Your task to perform on an android device: Go to Google maps Image 0: 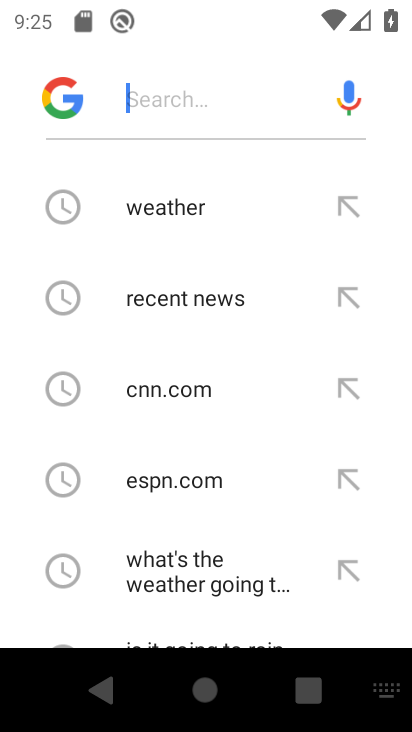
Step 0: press home button
Your task to perform on an android device: Go to Google maps Image 1: 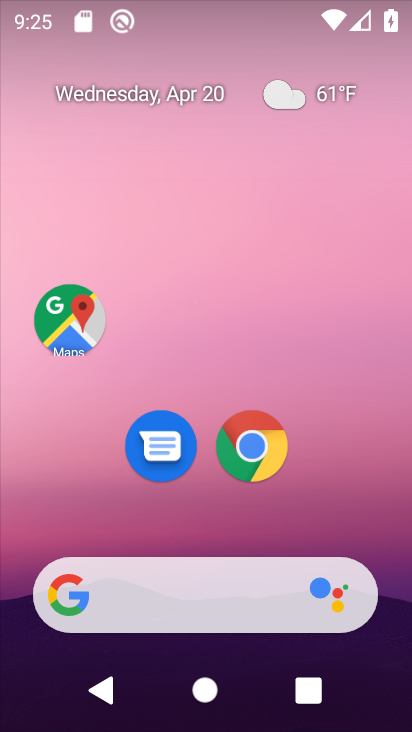
Step 1: drag from (364, 481) to (354, 122)
Your task to perform on an android device: Go to Google maps Image 2: 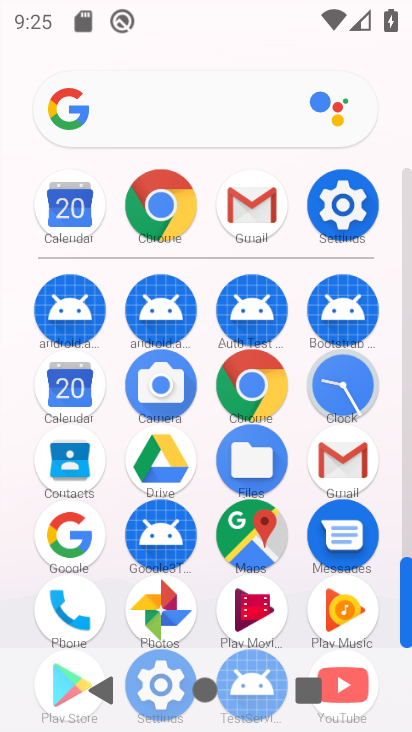
Step 2: click (261, 547)
Your task to perform on an android device: Go to Google maps Image 3: 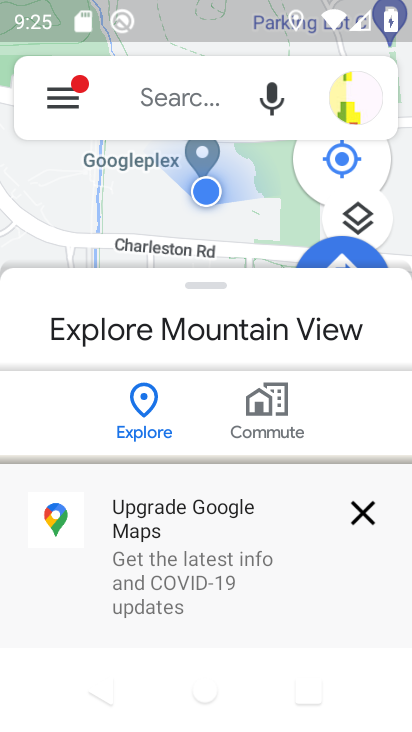
Step 3: click (357, 520)
Your task to perform on an android device: Go to Google maps Image 4: 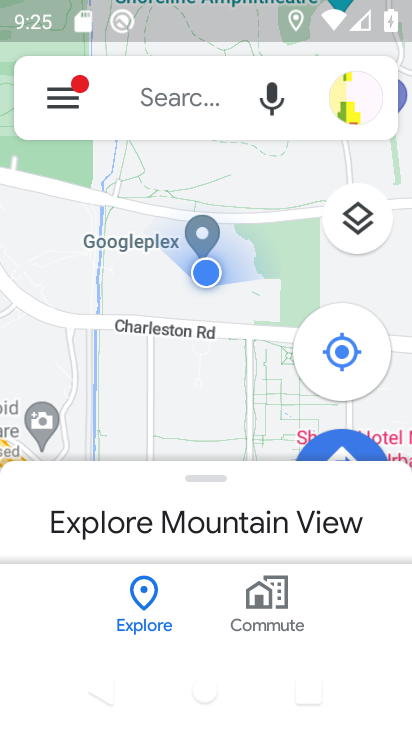
Step 4: click (181, 104)
Your task to perform on an android device: Go to Google maps Image 5: 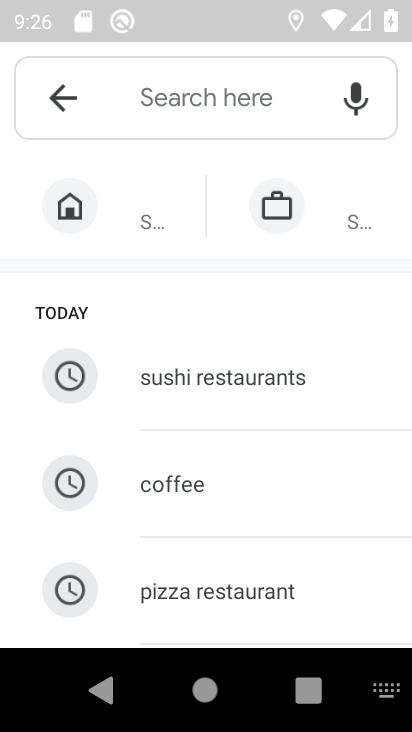
Step 5: task complete